Your task to perform on an android device: open app "Messenger Lite" (install if not already installed) and enter user name: "cataclysmic@outlook.com" and password: "victoriously" Image 0: 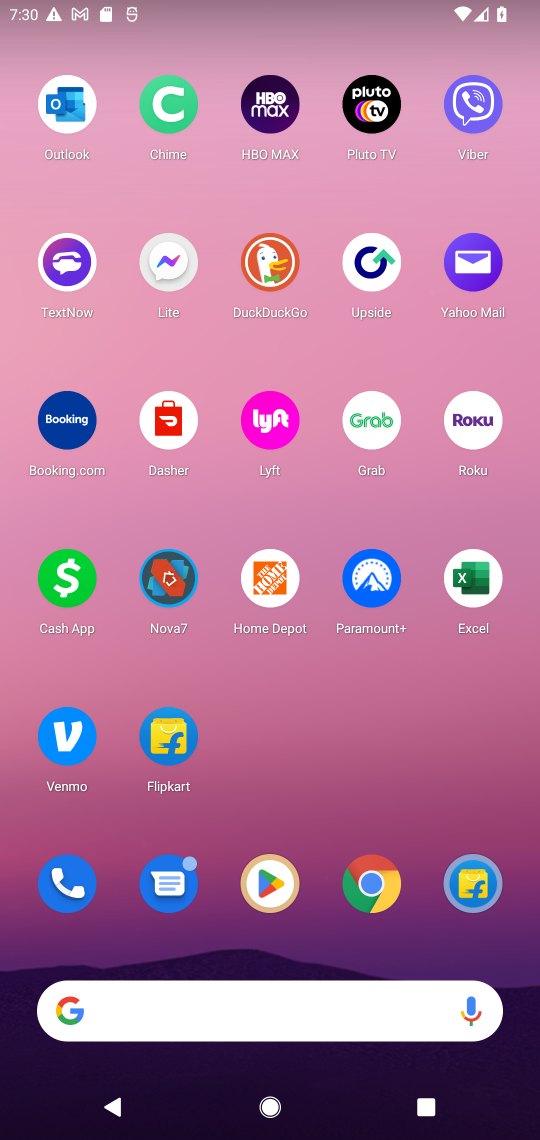
Step 0: click (273, 892)
Your task to perform on an android device: open app "Messenger Lite" (install if not already installed) and enter user name: "cataclysmic@outlook.com" and password: "victoriously" Image 1: 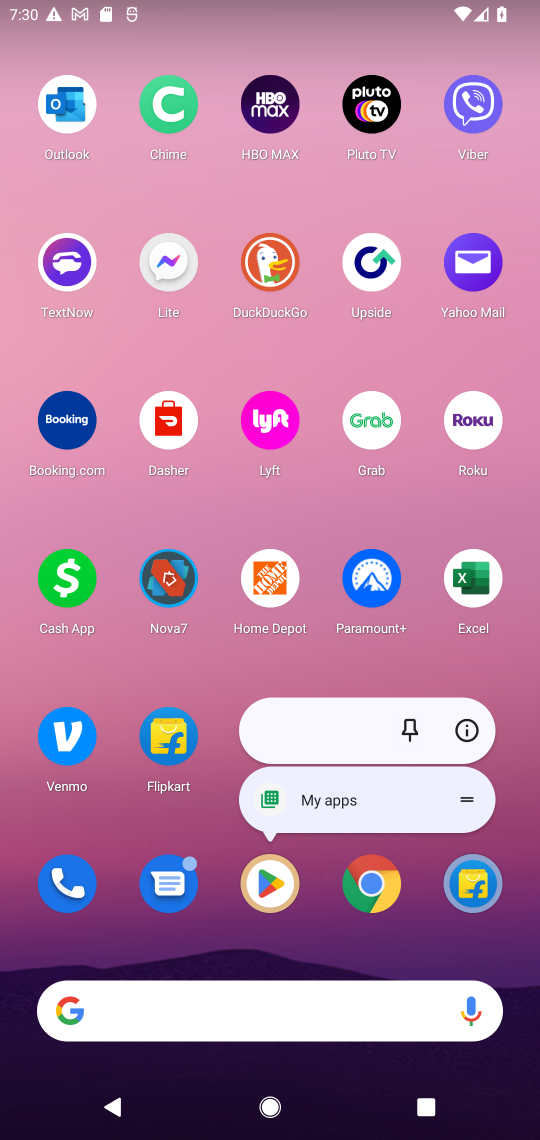
Step 1: click (273, 892)
Your task to perform on an android device: open app "Messenger Lite" (install if not already installed) and enter user name: "cataclysmic@outlook.com" and password: "victoriously" Image 2: 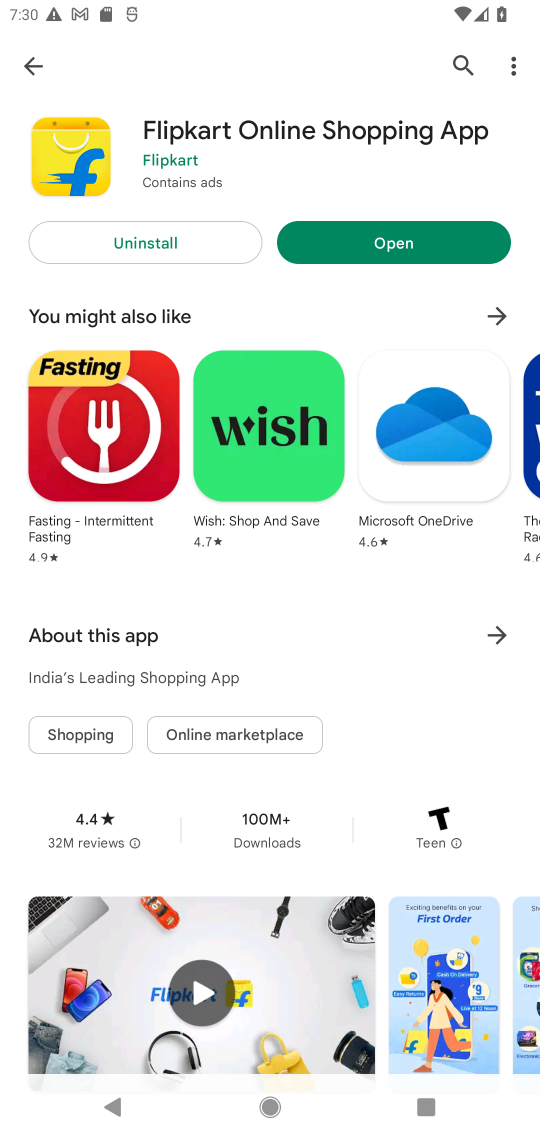
Step 2: click (462, 81)
Your task to perform on an android device: open app "Messenger Lite" (install if not already installed) and enter user name: "cataclysmic@outlook.com" and password: "victoriously" Image 3: 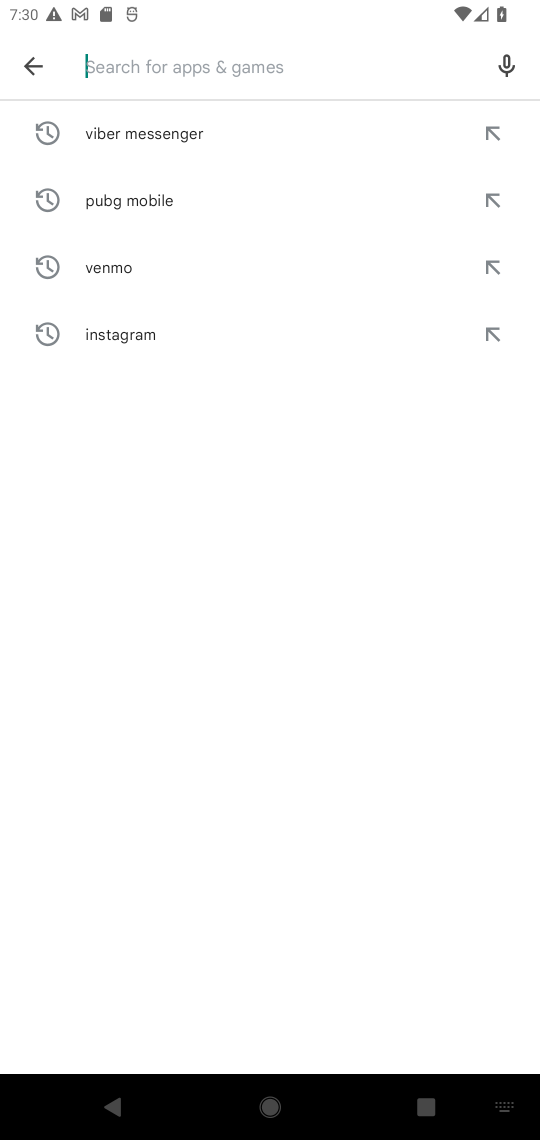
Step 3: type "Messenger Lite"
Your task to perform on an android device: open app "Messenger Lite" (install if not already installed) and enter user name: "cataclysmic@outlook.com" and password: "victoriously" Image 4: 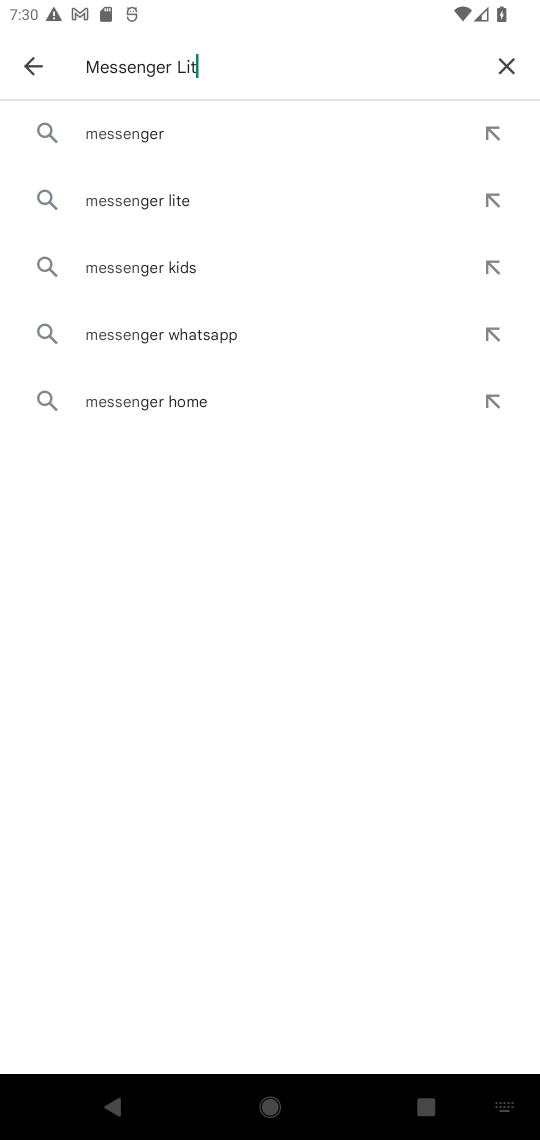
Step 4: type ""
Your task to perform on an android device: open app "Messenger Lite" (install if not already installed) and enter user name: "cataclysmic@outlook.com" and password: "victoriously" Image 5: 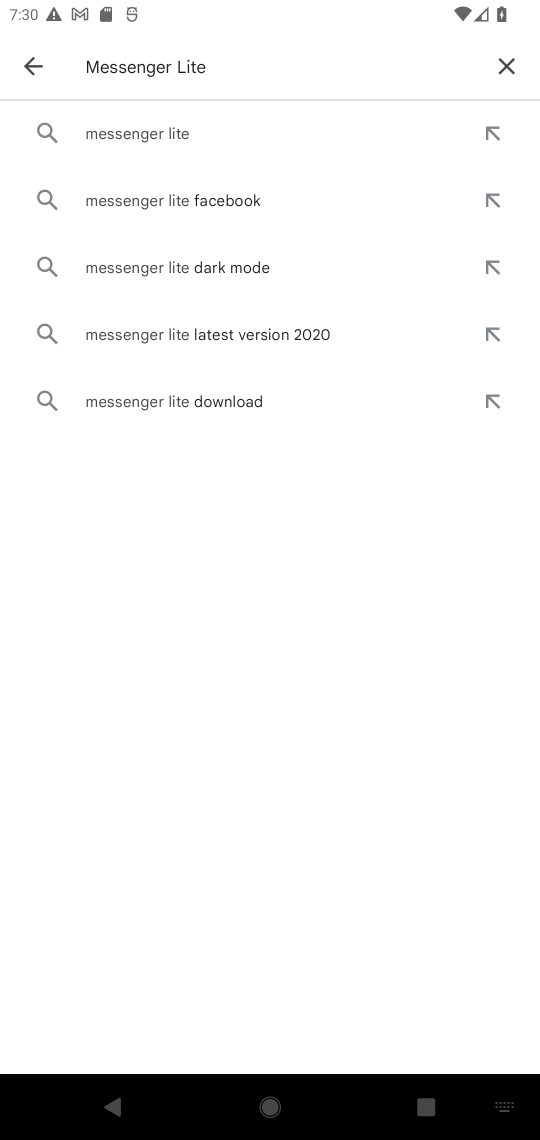
Step 5: click (258, 121)
Your task to perform on an android device: open app "Messenger Lite" (install if not already installed) and enter user name: "cataclysmic@outlook.com" and password: "victoriously" Image 6: 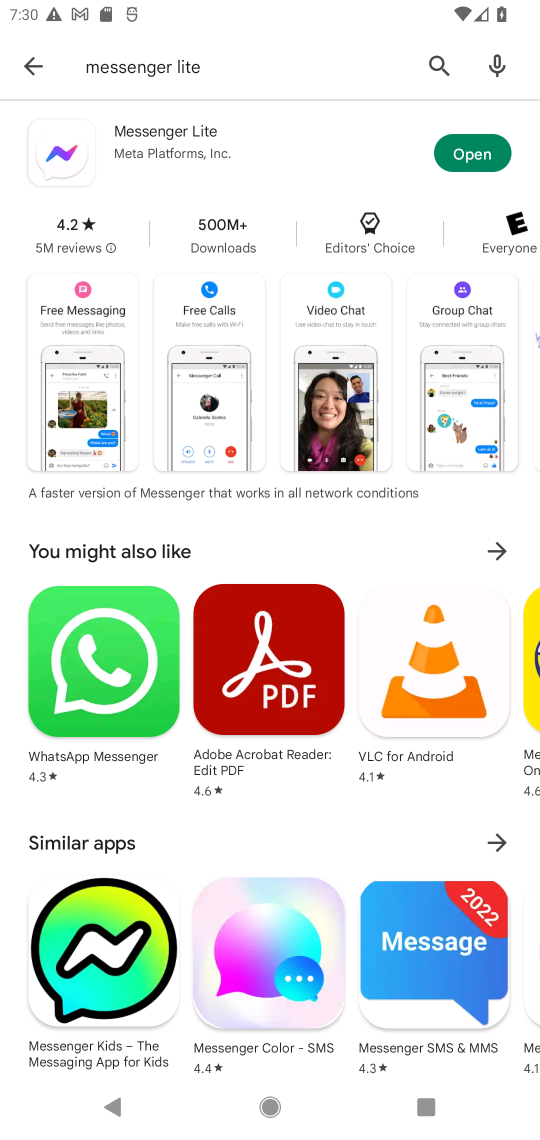
Step 6: click (463, 160)
Your task to perform on an android device: open app "Messenger Lite" (install if not already installed) and enter user name: "cataclysmic@outlook.com" and password: "victoriously" Image 7: 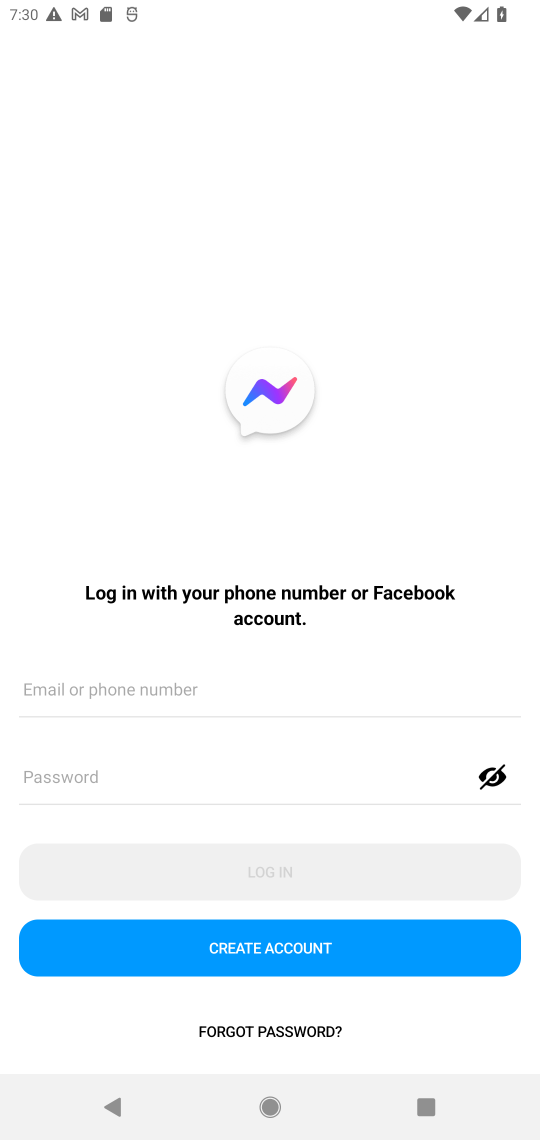
Step 7: task complete